Your task to perform on an android device: empty trash in the gmail app Image 0: 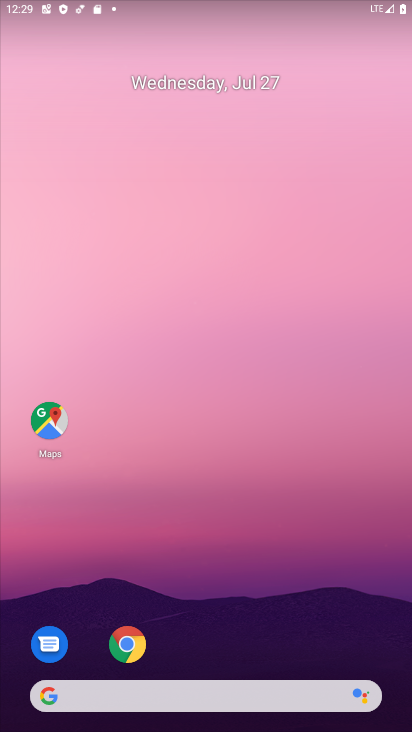
Step 0: drag from (210, 633) to (264, 20)
Your task to perform on an android device: empty trash in the gmail app Image 1: 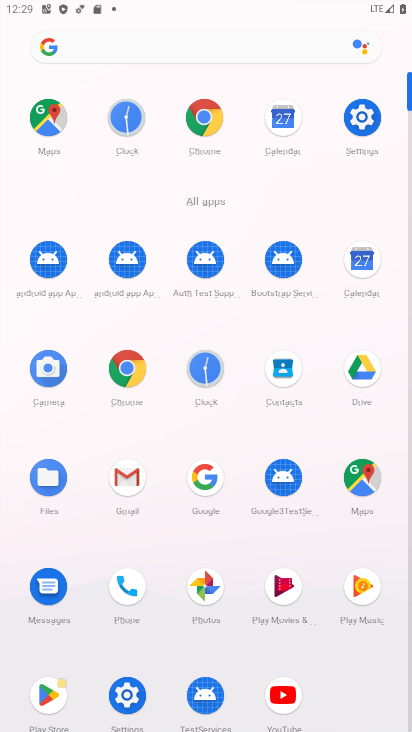
Step 1: click (128, 482)
Your task to perform on an android device: empty trash in the gmail app Image 2: 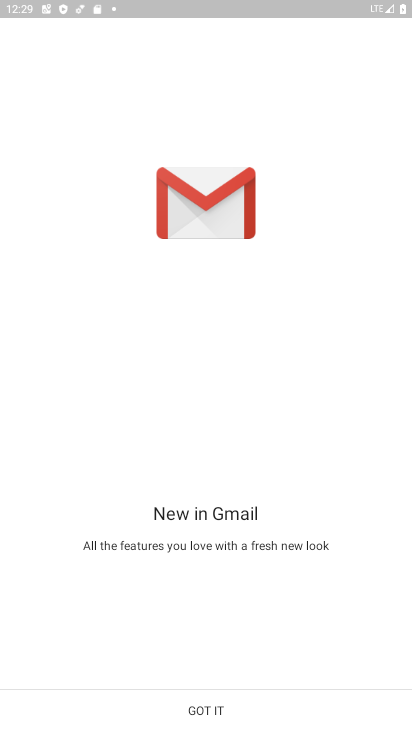
Step 2: click (253, 697)
Your task to perform on an android device: empty trash in the gmail app Image 3: 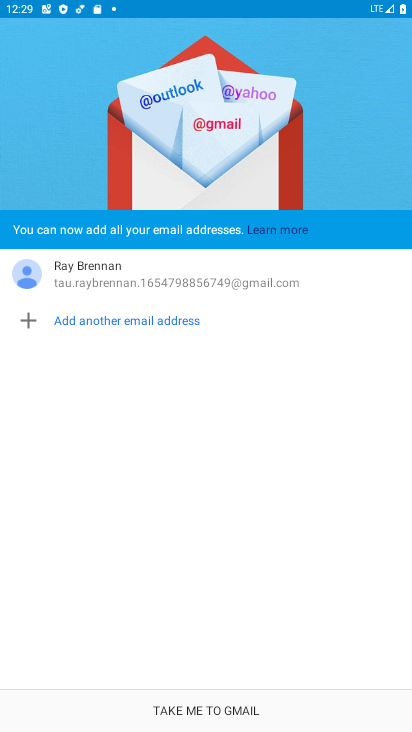
Step 3: click (234, 708)
Your task to perform on an android device: empty trash in the gmail app Image 4: 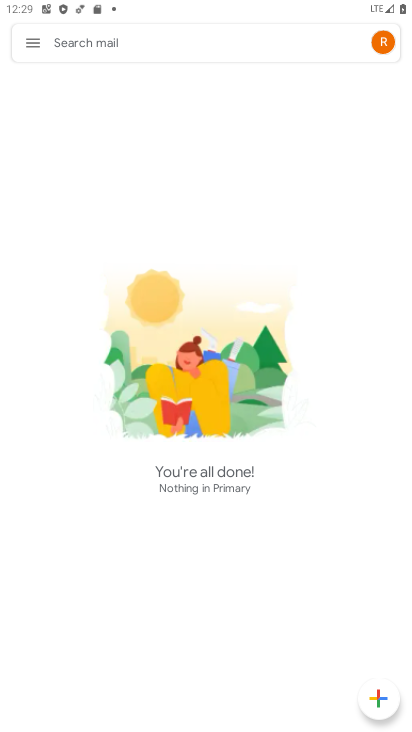
Step 4: click (33, 48)
Your task to perform on an android device: empty trash in the gmail app Image 5: 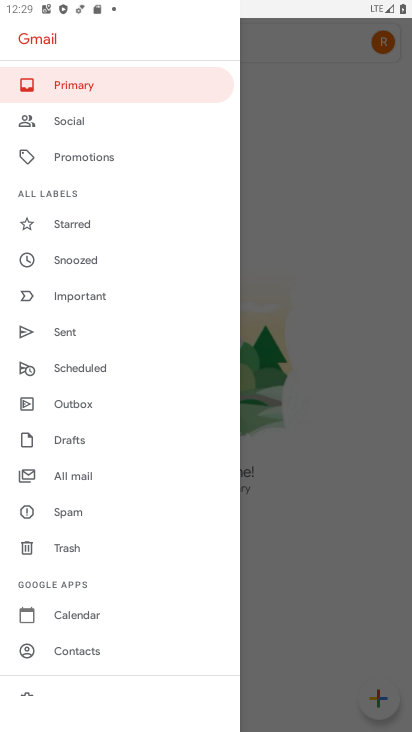
Step 5: click (80, 556)
Your task to perform on an android device: empty trash in the gmail app Image 6: 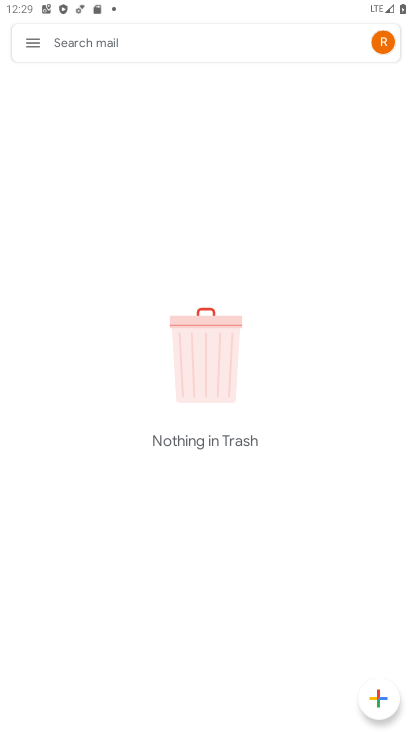
Step 6: task complete